Your task to perform on an android device: allow cookies in the chrome app Image 0: 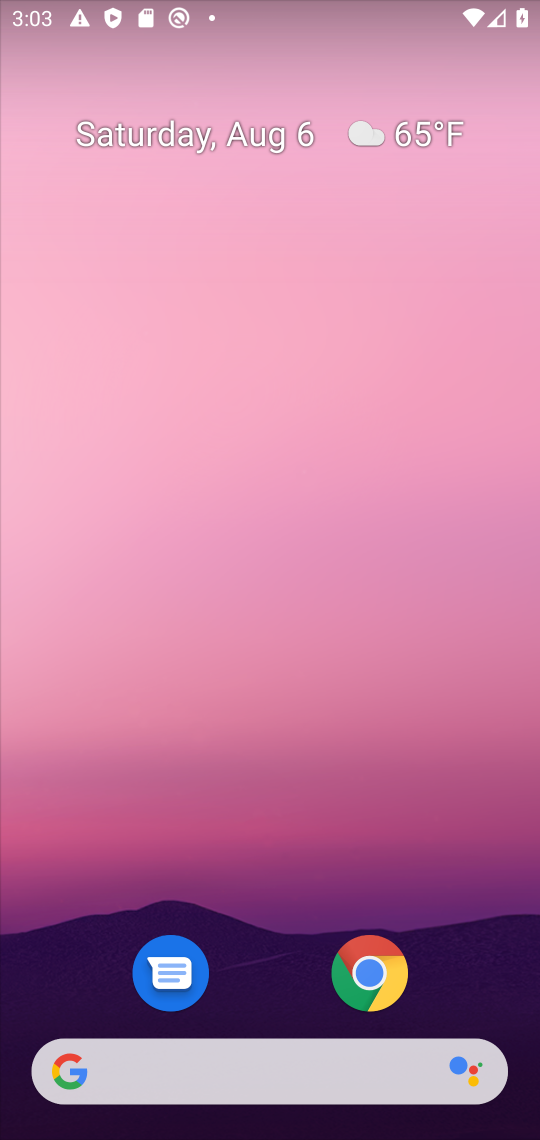
Step 0: click (356, 978)
Your task to perform on an android device: allow cookies in the chrome app Image 1: 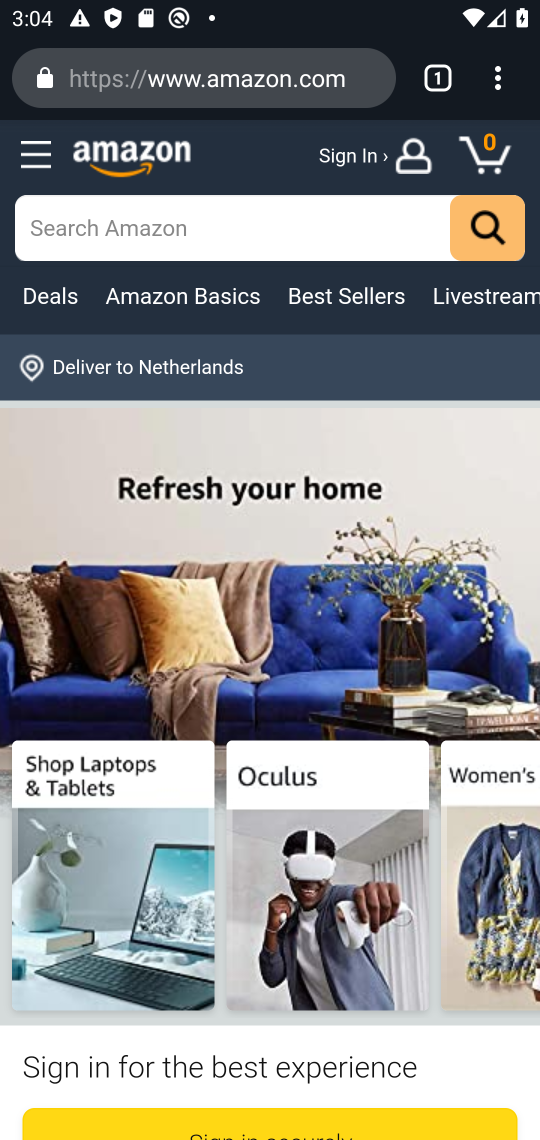
Step 1: click (491, 75)
Your task to perform on an android device: allow cookies in the chrome app Image 2: 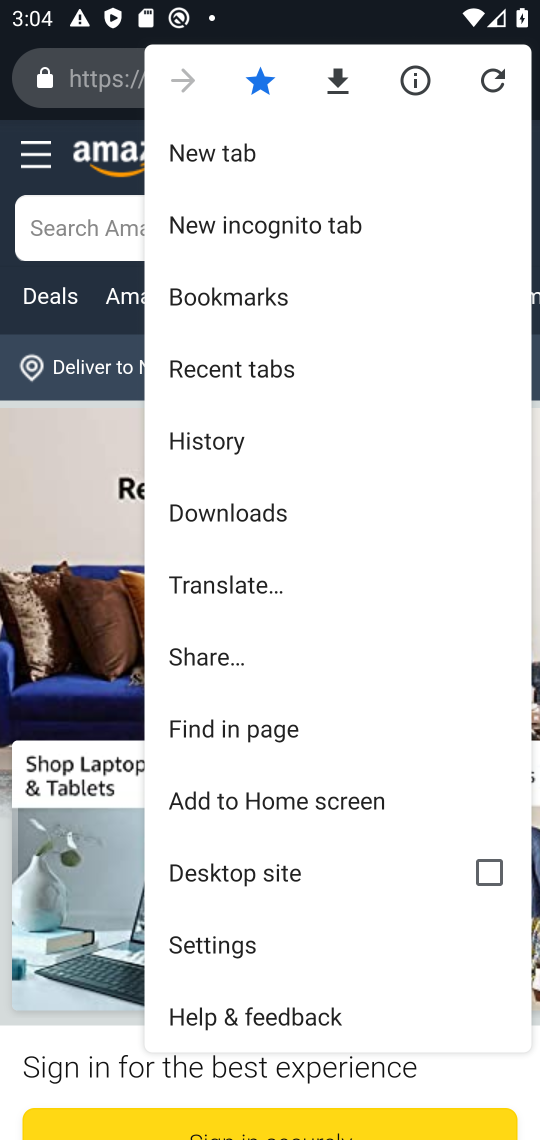
Step 2: click (270, 943)
Your task to perform on an android device: allow cookies in the chrome app Image 3: 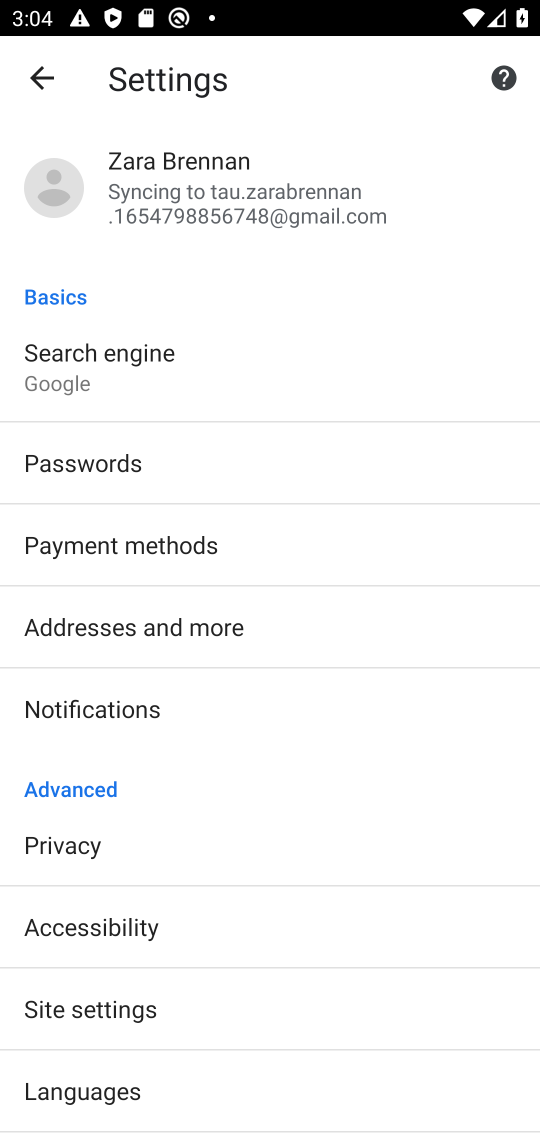
Step 3: click (180, 1009)
Your task to perform on an android device: allow cookies in the chrome app Image 4: 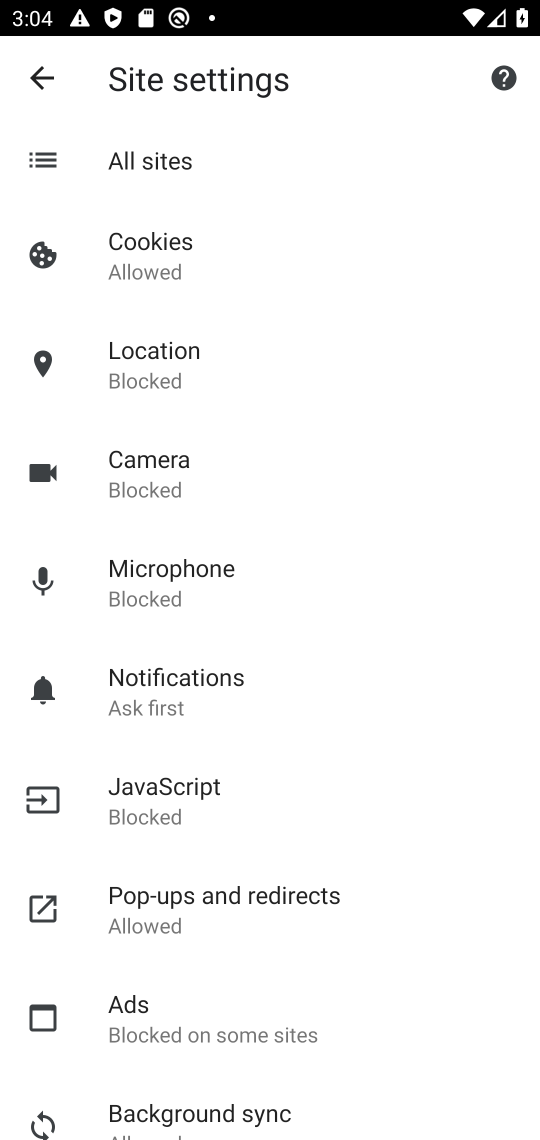
Step 4: click (235, 264)
Your task to perform on an android device: allow cookies in the chrome app Image 5: 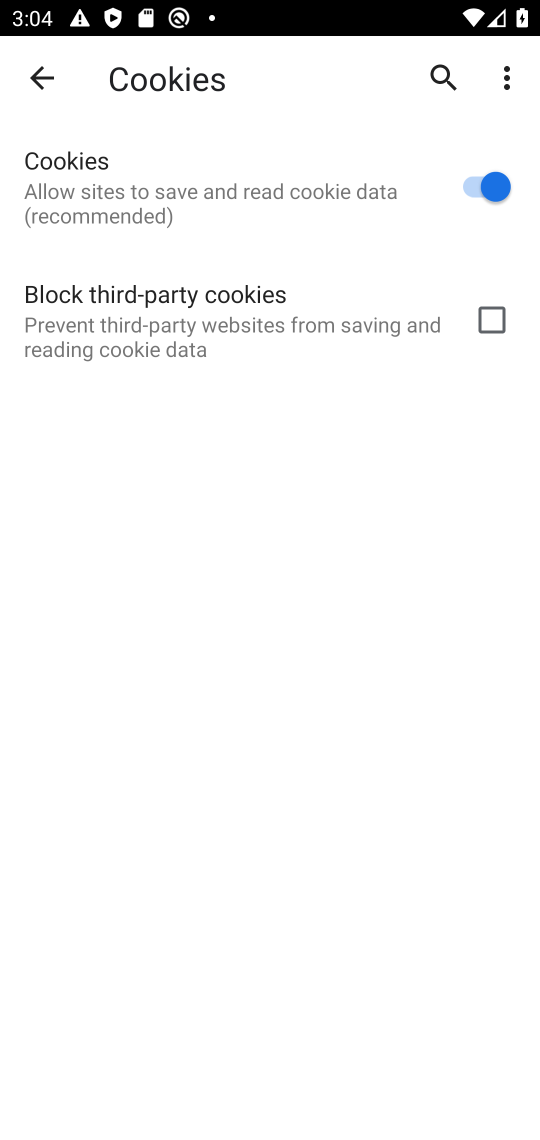
Step 5: task complete